Your task to perform on an android device: check google app version Image 0: 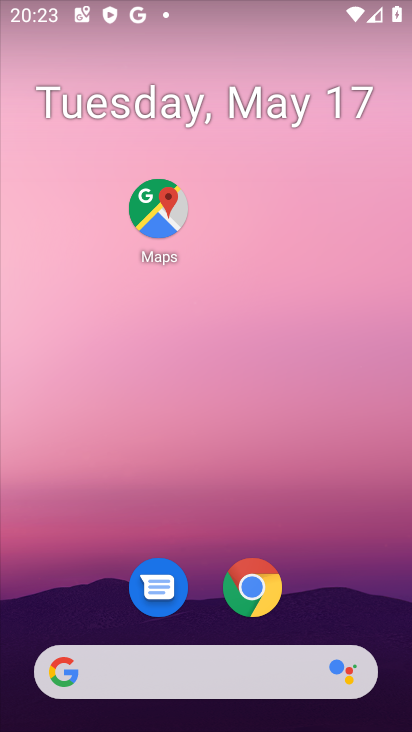
Step 0: click (410, 428)
Your task to perform on an android device: check google app version Image 1: 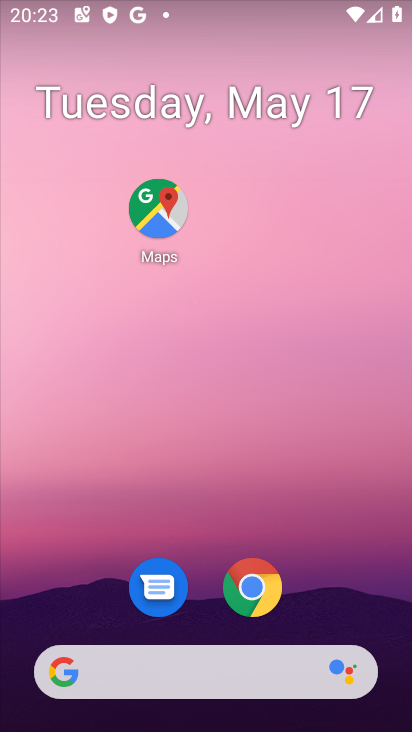
Step 1: press home button
Your task to perform on an android device: check google app version Image 2: 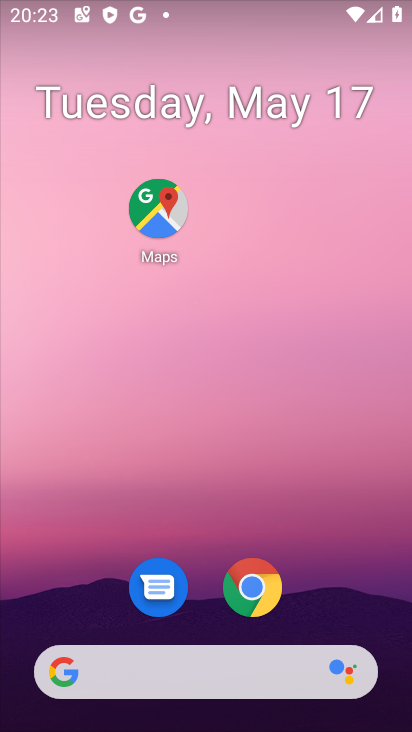
Step 2: drag from (72, 560) to (272, 144)
Your task to perform on an android device: check google app version Image 3: 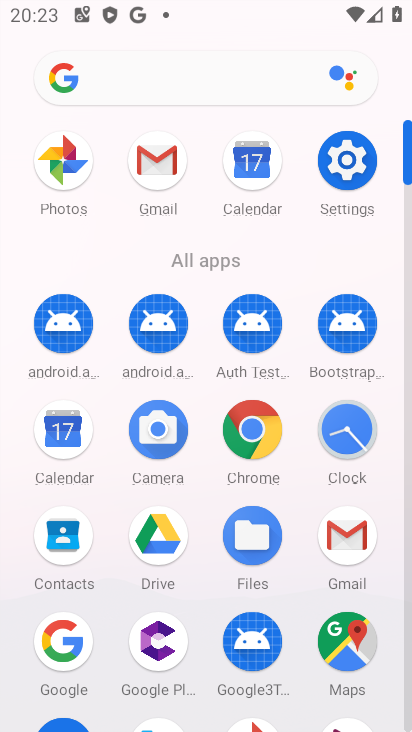
Step 3: drag from (23, 541) to (170, 278)
Your task to perform on an android device: check google app version Image 4: 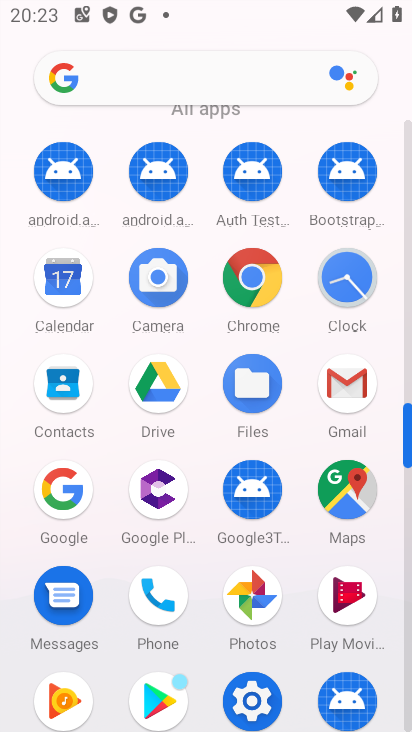
Step 4: click (255, 486)
Your task to perform on an android device: check google app version Image 5: 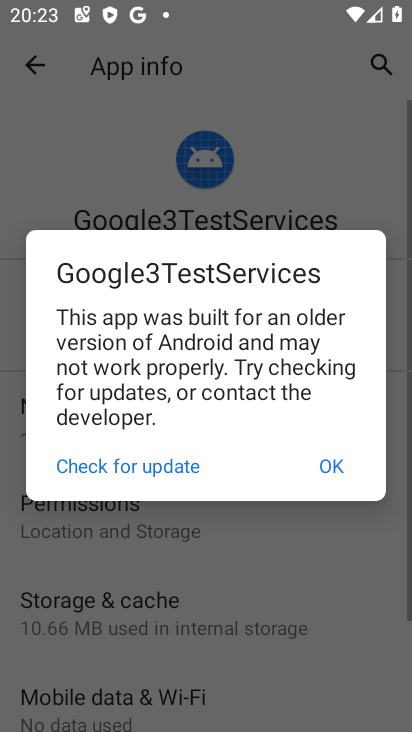
Step 5: click (335, 467)
Your task to perform on an android device: check google app version Image 6: 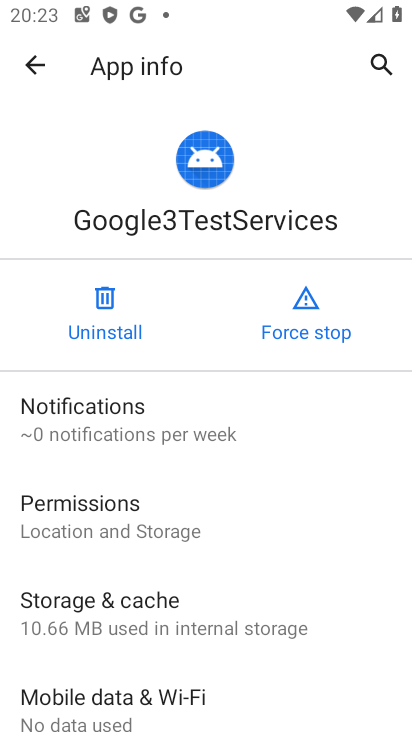
Step 6: drag from (4, 584) to (169, 243)
Your task to perform on an android device: check google app version Image 7: 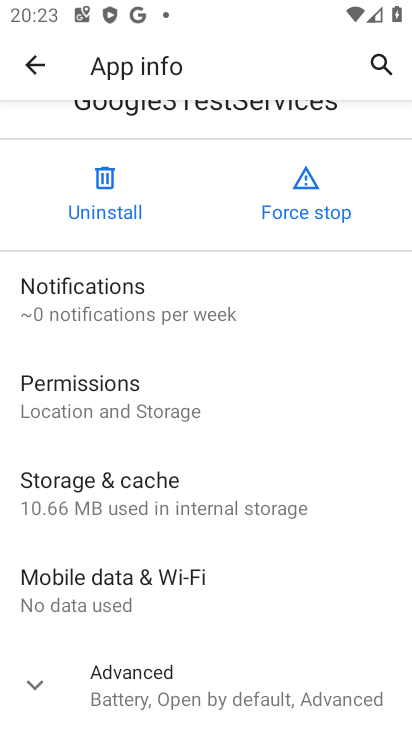
Step 7: drag from (17, 714) to (171, 389)
Your task to perform on an android device: check google app version Image 8: 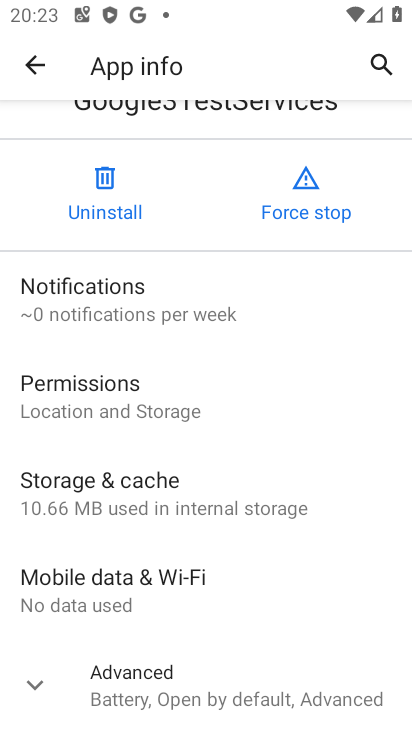
Step 8: click (202, 663)
Your task to perform on an android device: check google app version Image 9: 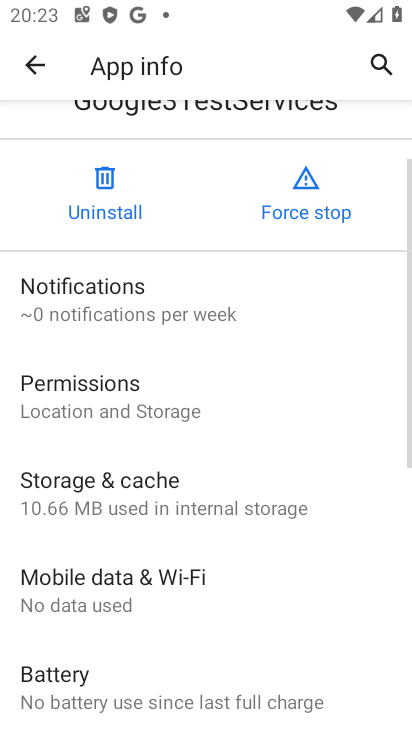
Step 9: drag from (1, 560) to (138, 328)
Your task to perform on an android device: check google app version Image 10: 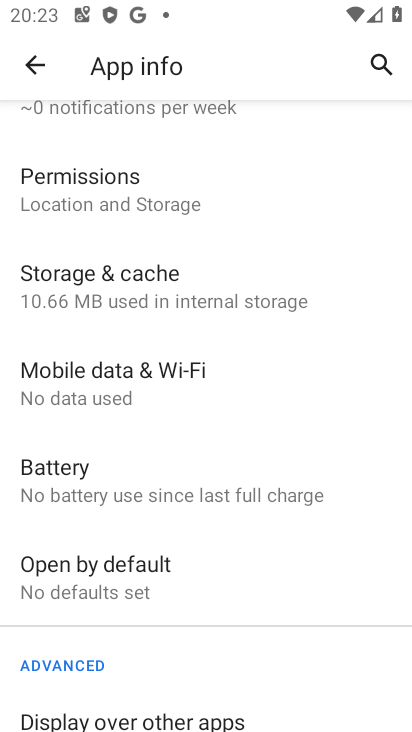
Step 10: drag from (23, 606) to (335, 254)
Your task to perform on an android device: check google app version Image 11: 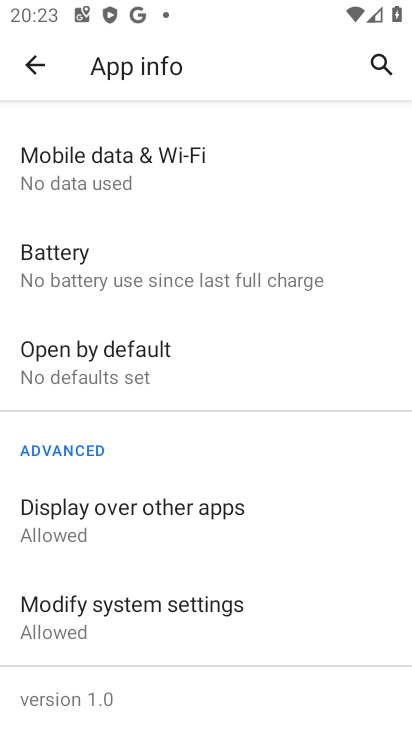
Step 11: click (106, 695)
Your task to perform on an android device: check google app version Image 12: 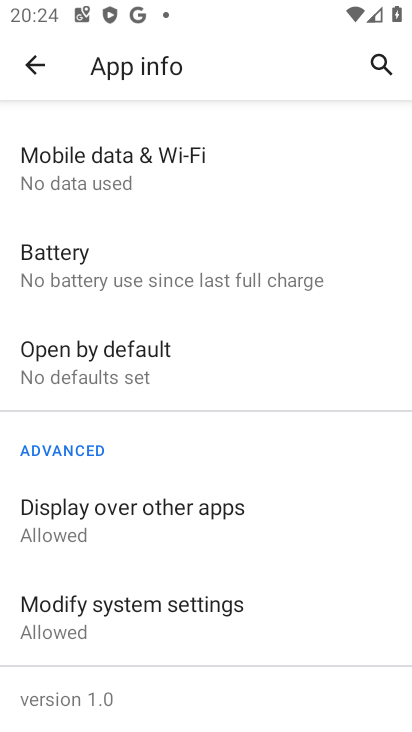
Step 12: task complete